Your task to perform on an android device: Open calendar and show me the first week of next month Image 0: 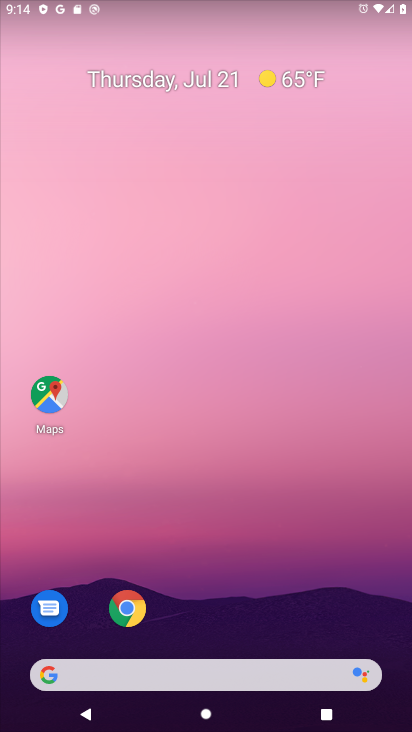
Step 0: drag from (289, 558) to (311, 141)
Your task to perform on an android device: Open calendar and show me the first week of next month Image 1: 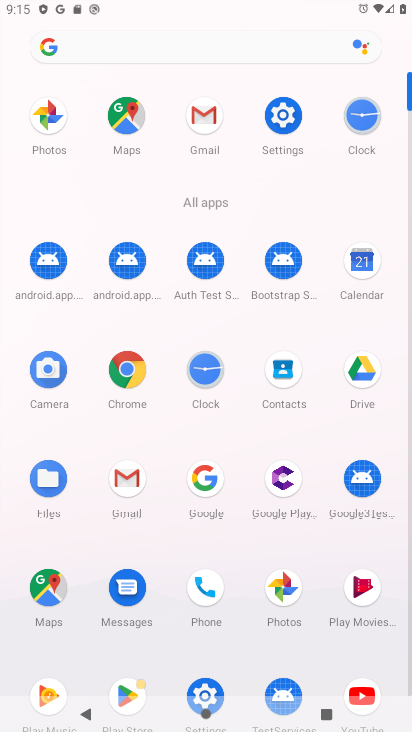
Step 1: click (366, 259)
Your task to perform on an android device: Open calendar and show me the first week of next month Image 2: 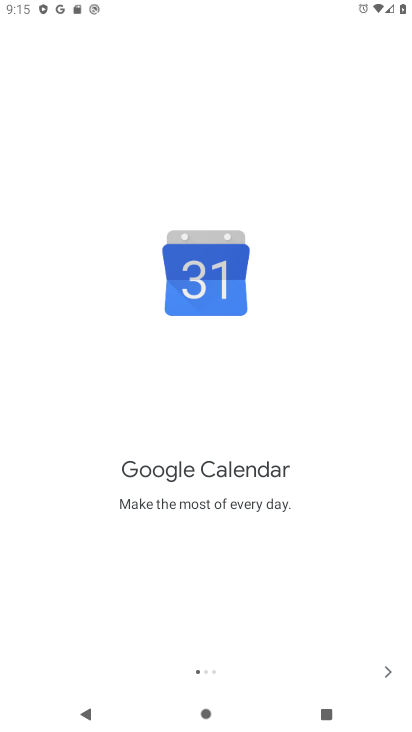
Step 2: click (391, 670)
Your task to perform on an android device: Open calendar and show me the first week of next month Image 3: 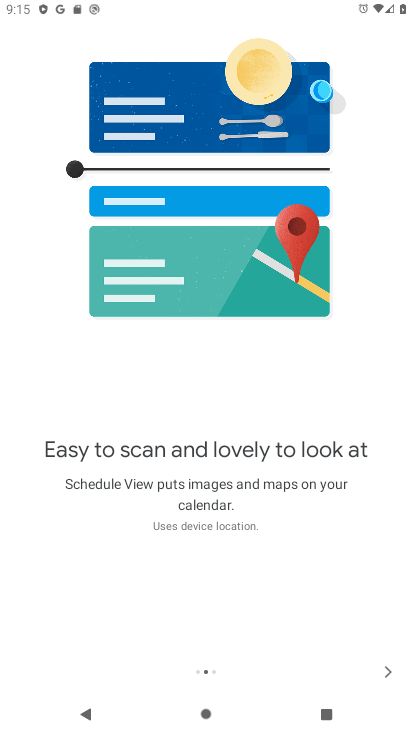
Step 3: click (383, 667)
Your task to perform on an android device: Open calendar and show me the first week of next month Image 4: 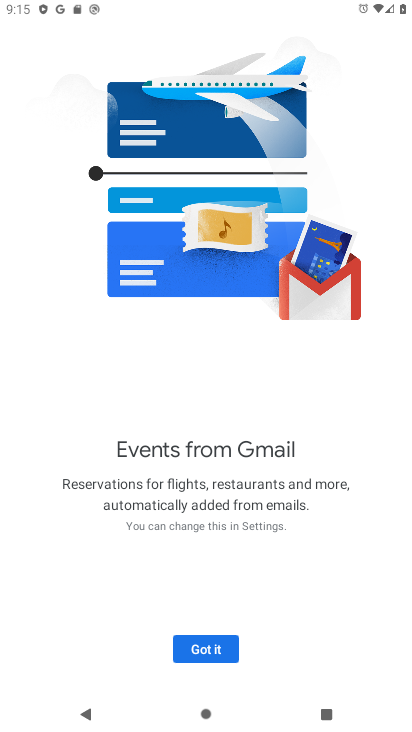
Step 4: click (204, 655)
Your task to perform on an android device: Open calendar and show me the first week of next month Image 5: 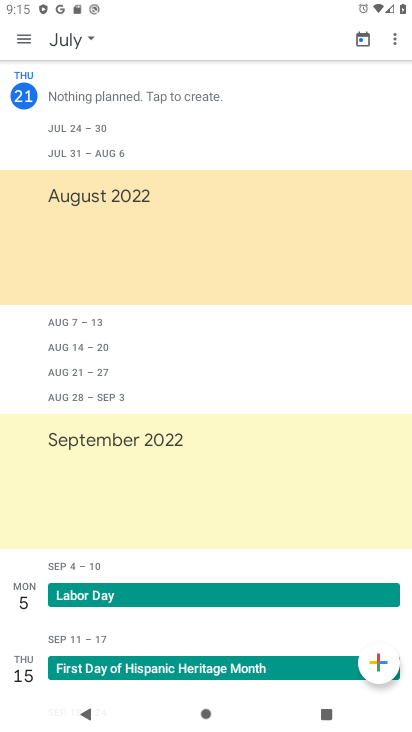
Step 5: task complete